Your task to perform on an android device: see sites visited before in the chrome app Image 0: 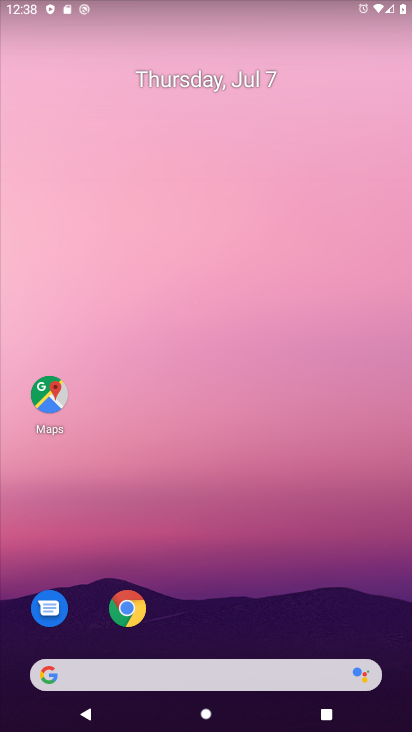
Step 0: click (133, 602)
Your task to perform on an android device: see sites visited before in the chrome app Image 1: 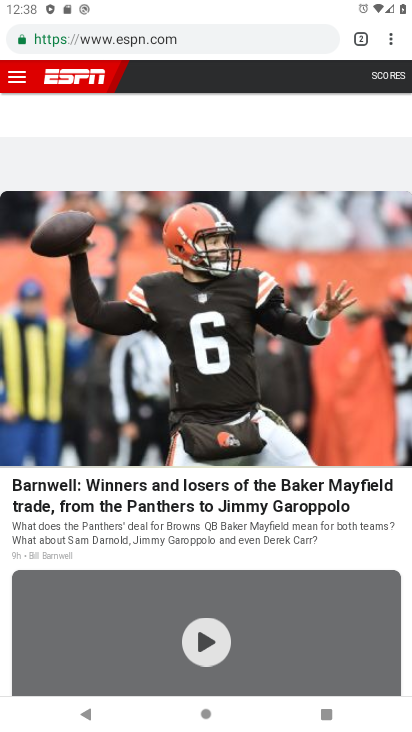
Step 1: task complete